Your task to perform on an android device: Go to privacy settings Image 0: 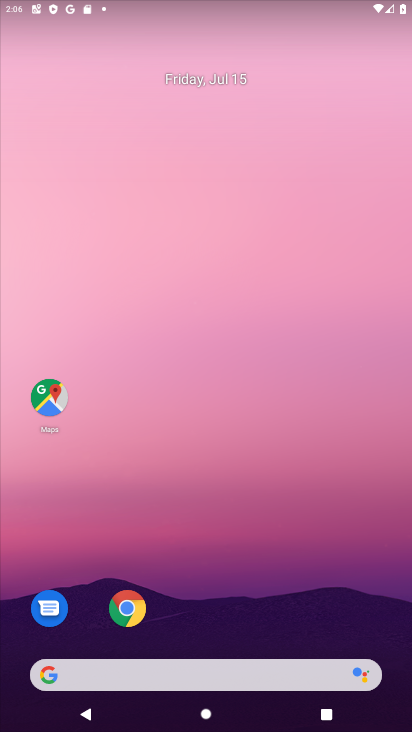
Step 0: drag from (148, 679) to (155, 170)
Your task to perform on an android device: Go to privacy settings Image 1: 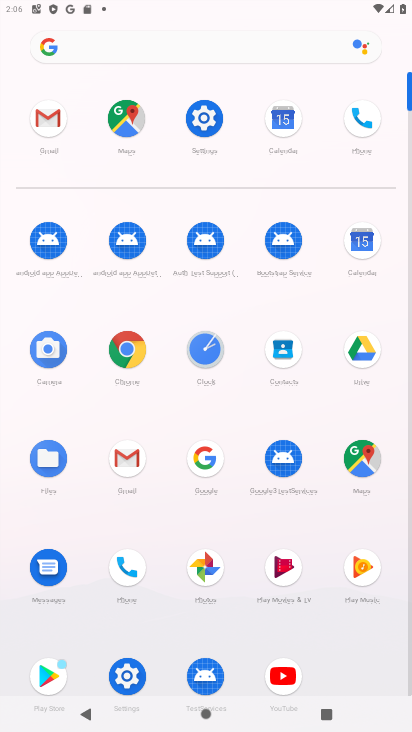
Step 1: click (204, 113)
Your task to perform on an android device: Go to privacy settings Image 2: 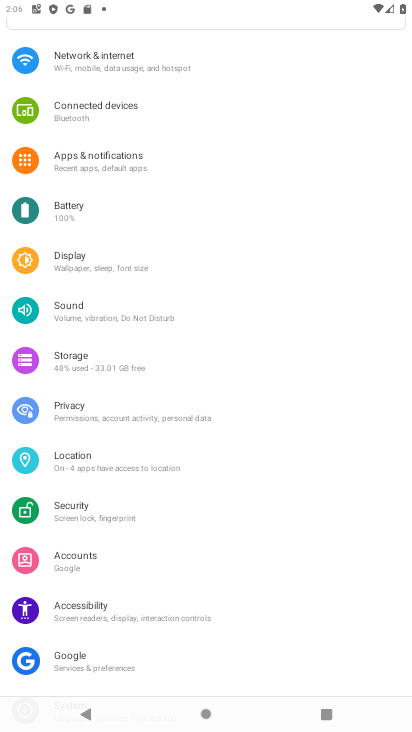
Step 2: click (95, 414)
Your task to perform on an android device: Go to privacy settings Image 3: 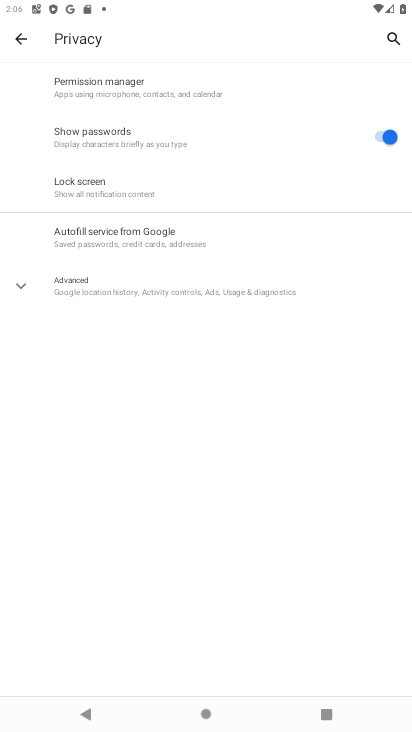
Step 3: task complete